Your task to perform on an android device: Open calendar and show me the second week of next month Image 0: 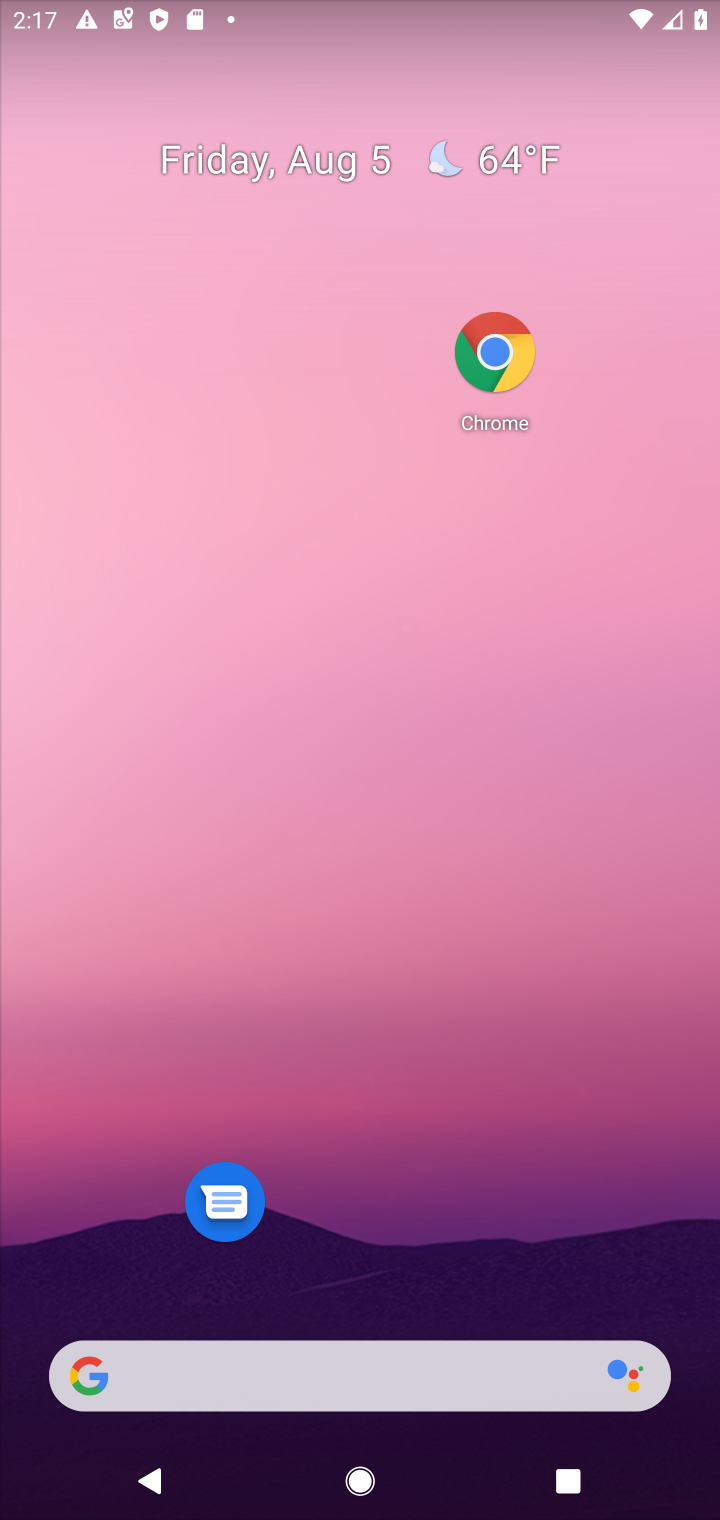
Step 0: drag from (465, 839) to (423, 113)
Your task to perform on an android device: Open calendar and show me the second week of next month Image 1: 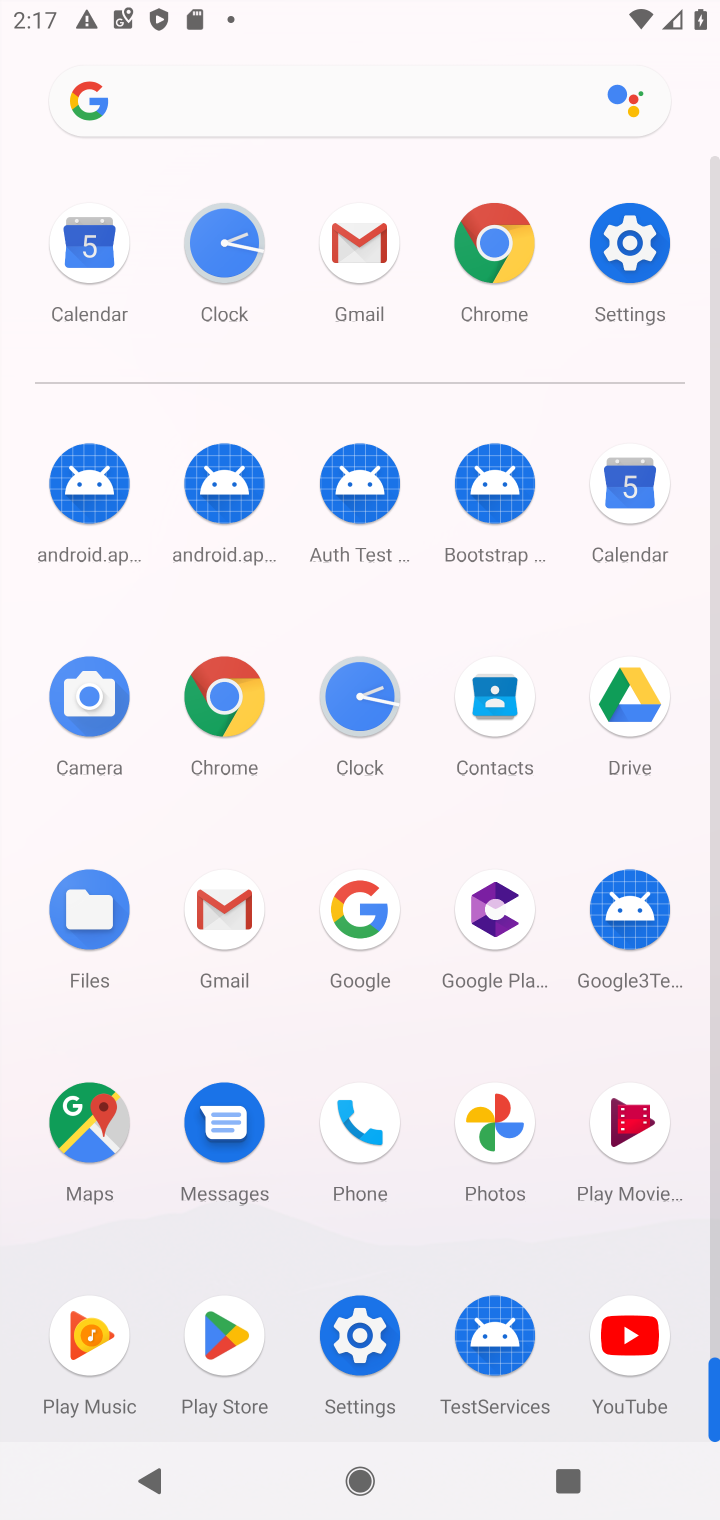
Step 1: click (624, 473)
Your task to perform on an android device: Open calendar and show me the second week of next month Image 2: 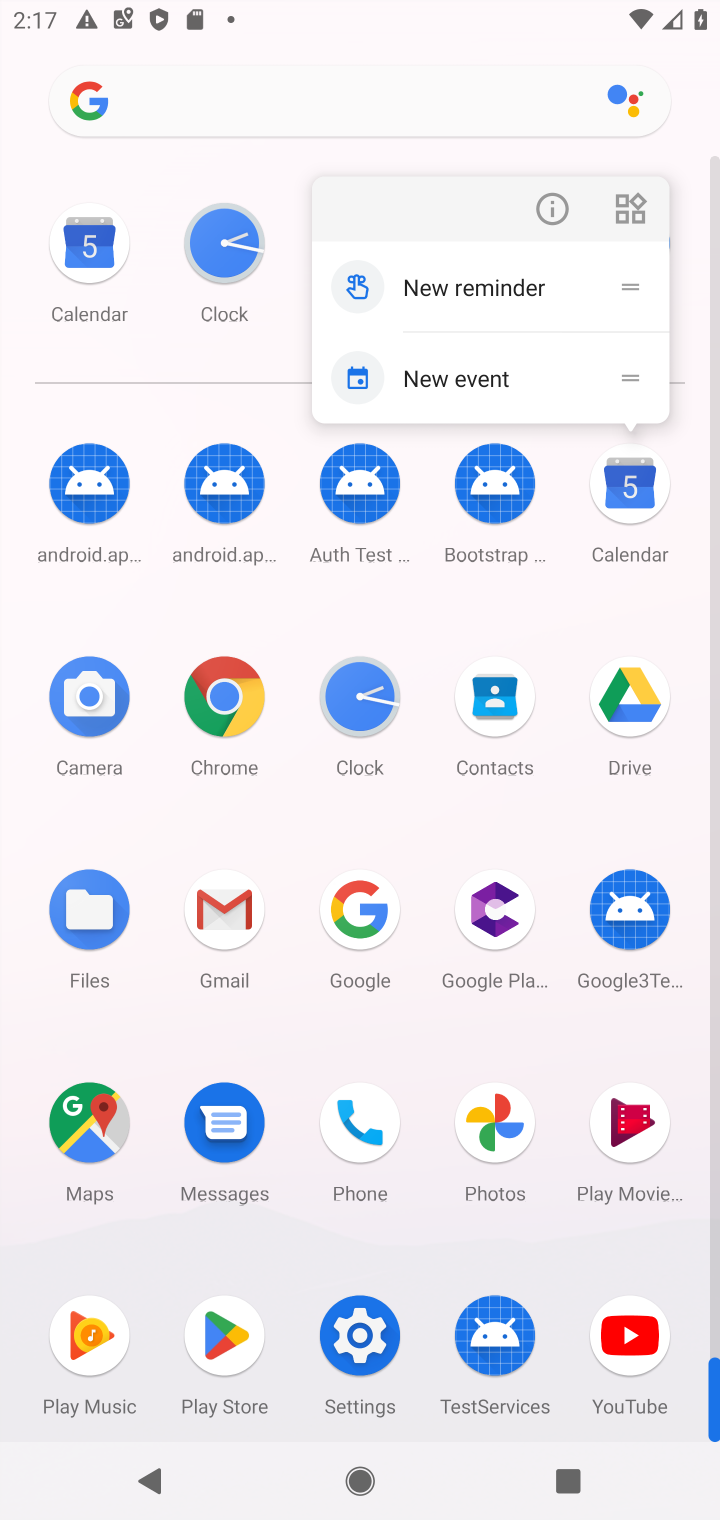
Step 2: click (620, 490)
Your task to perform on an android device: Open calendar and show me the second week of next month Image 3: 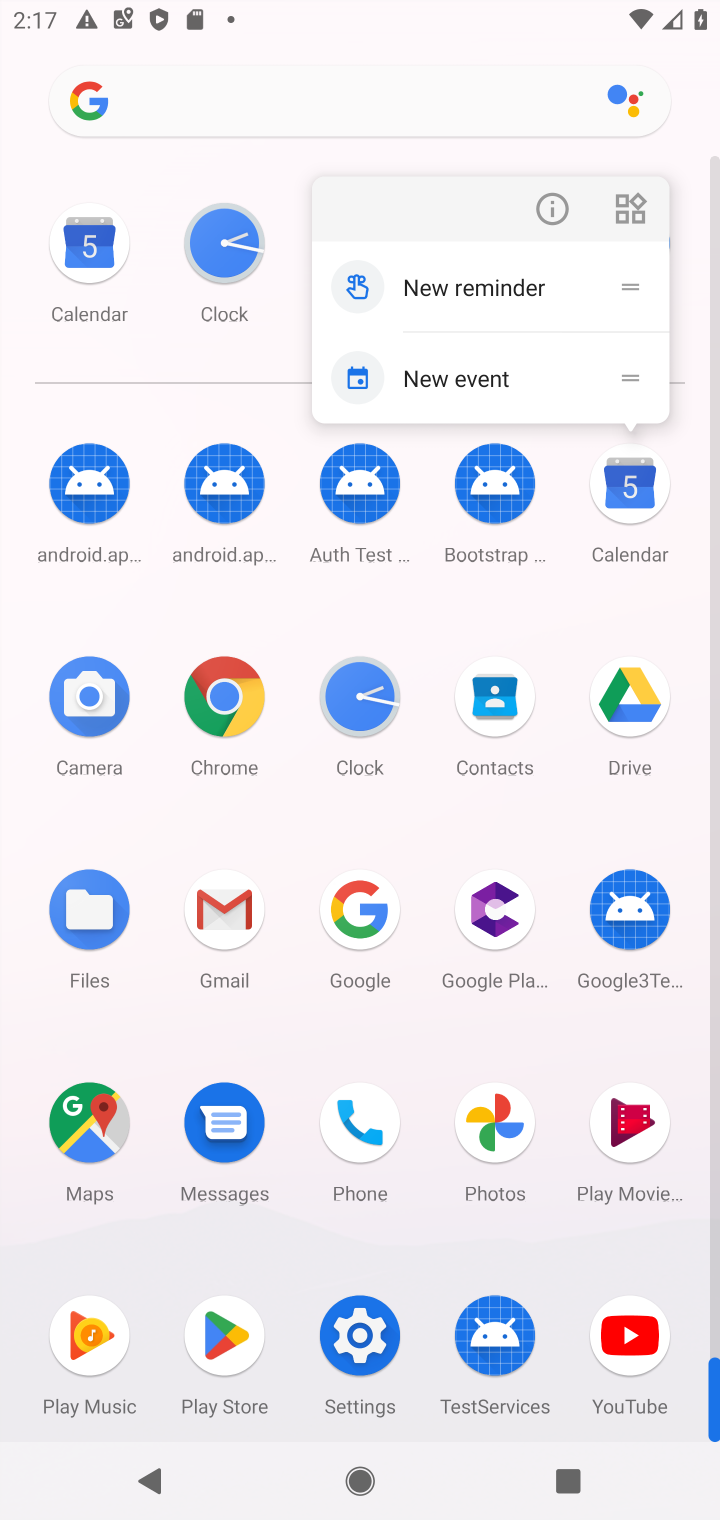
Step 3: click (581, 604)
Your task to perform on an android device: Open calendar and show me the second week of next month Image 4: 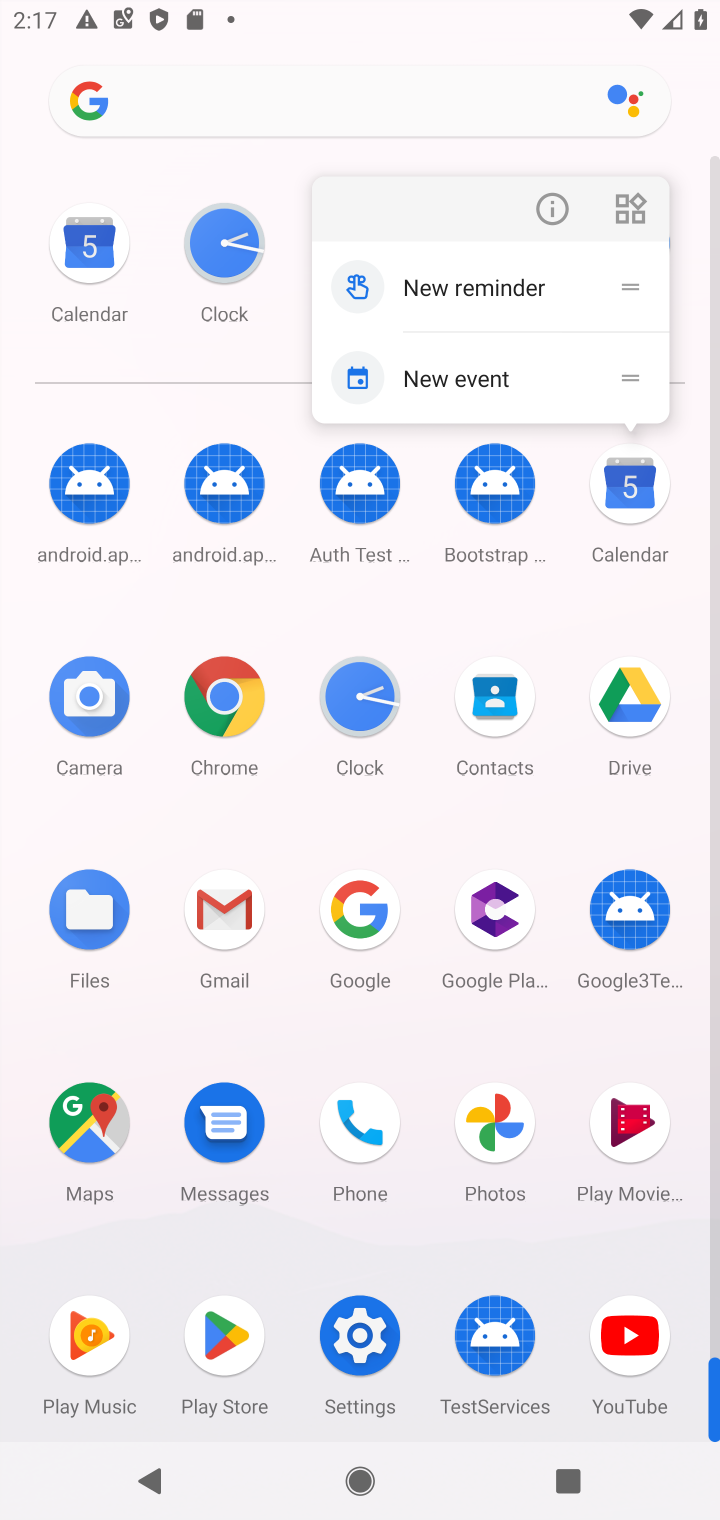
Step 4: click (601, 580)
Your task to perform on an android device: Open calendar and show me the second week of next month Image 5: 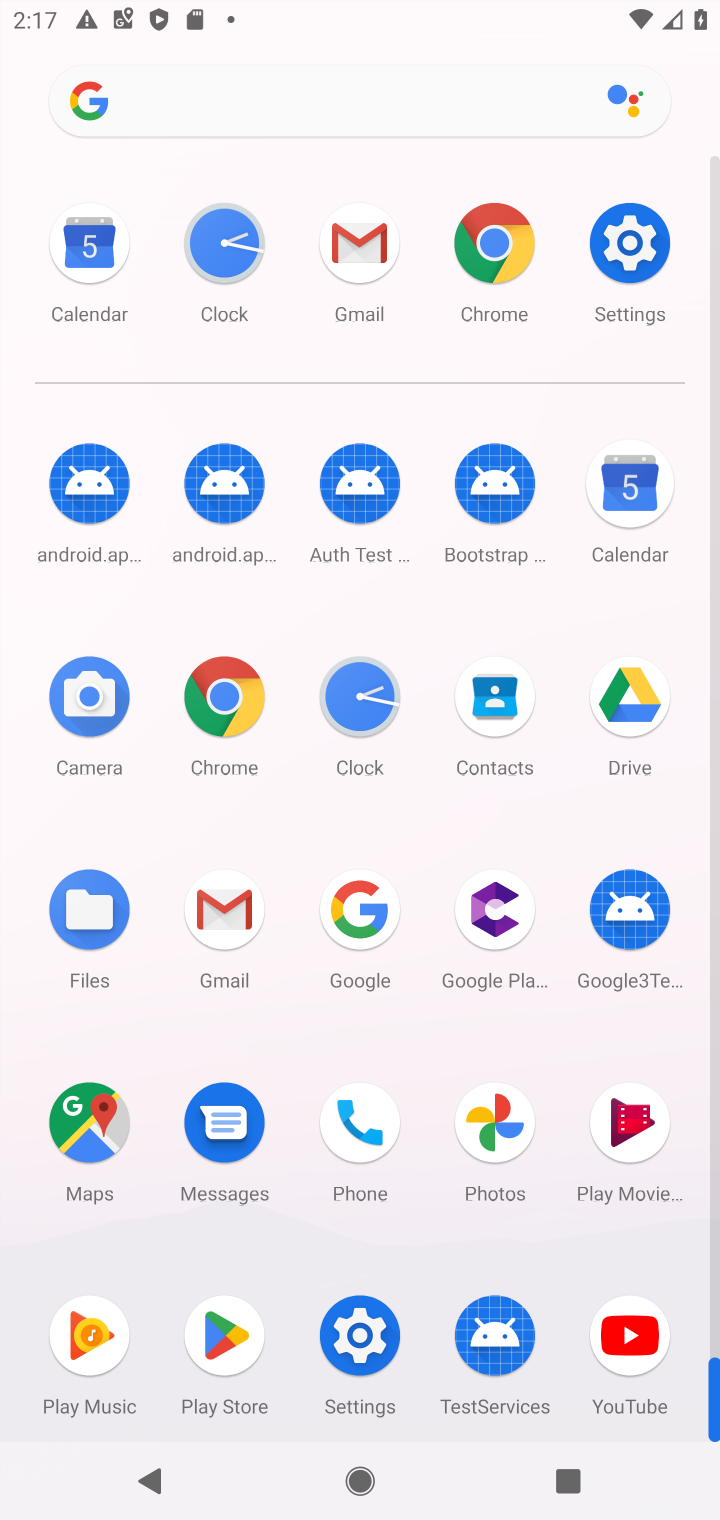
Step 5: click (635, 499)
Your task to perform on an android device: Open calendar and show me the second week of next month Image 6: 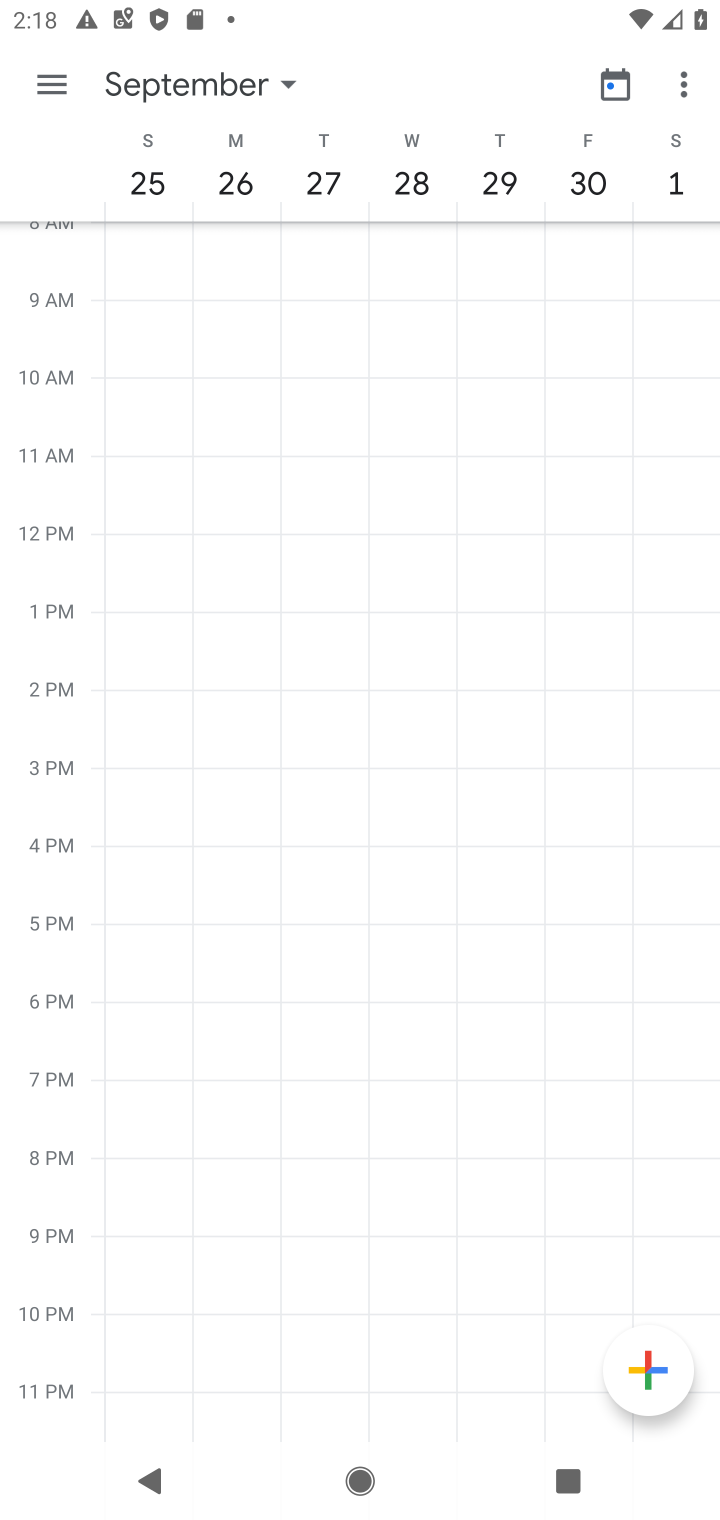
Step 6: click (243, 76)
Your task to perform on an android device: Open calendar and show me the second week of next month Image 7: 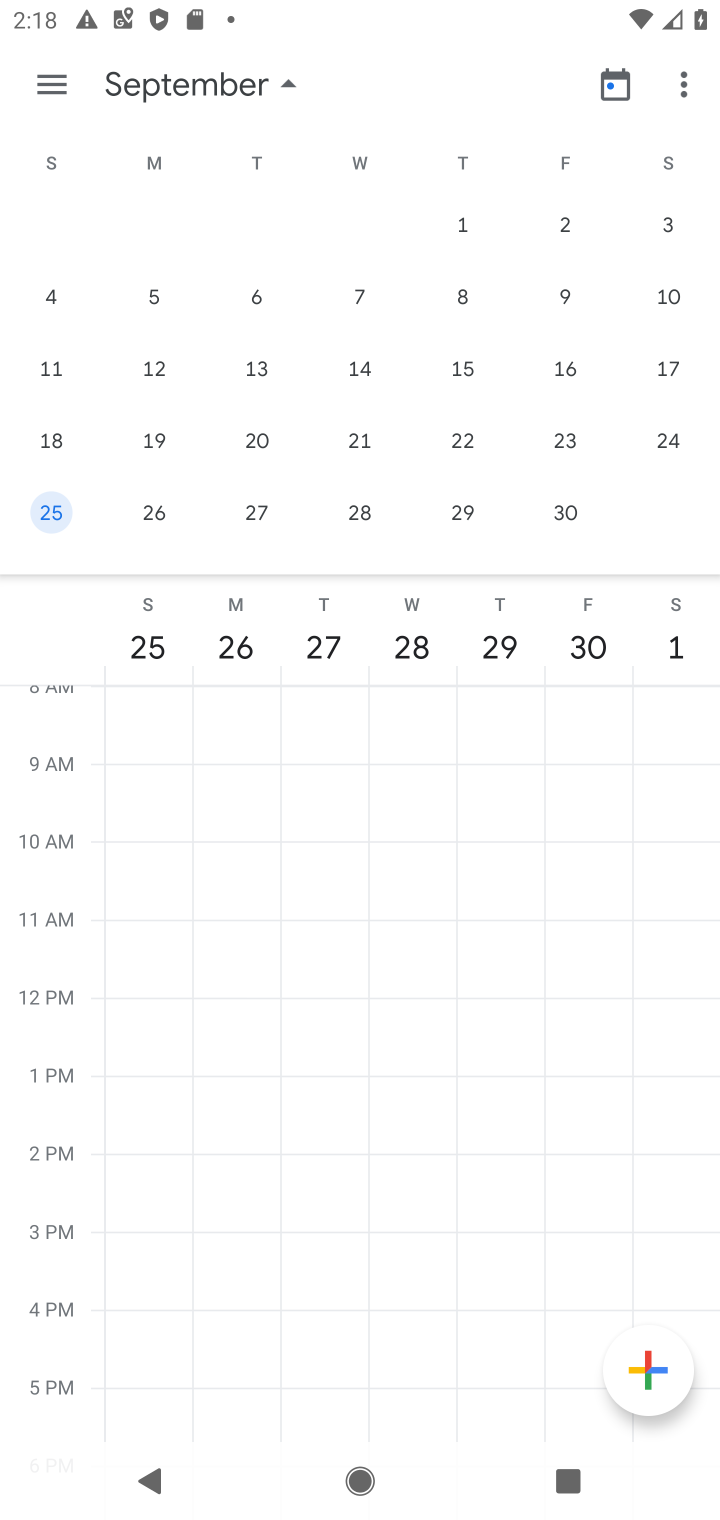
Step 7: click (263, 357)
Your task to perform on an android device: Open calendar and show me the second week of next month Image 8: 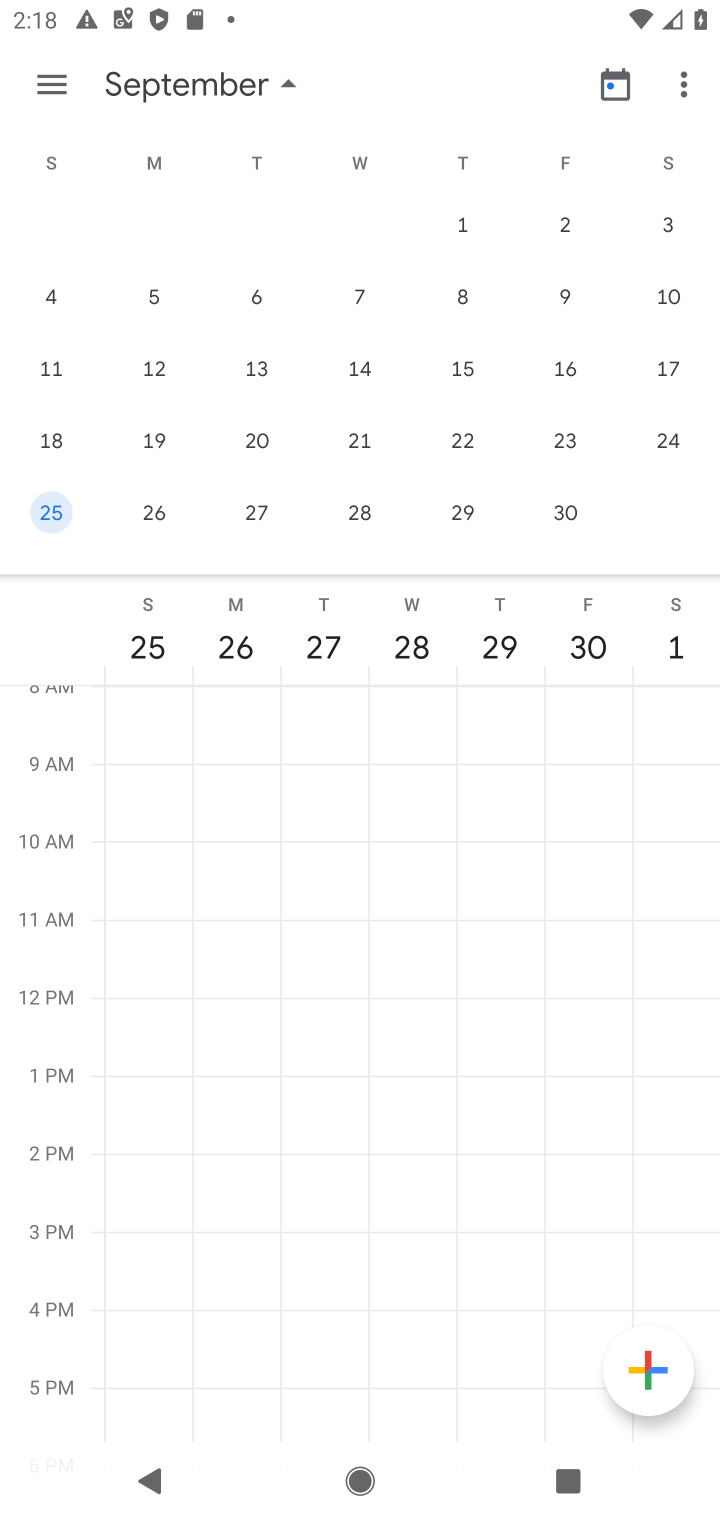
Step 8: click (263, 372)
Your task to perform on an android device: Open calendar and show me the second week of next month Image 9: 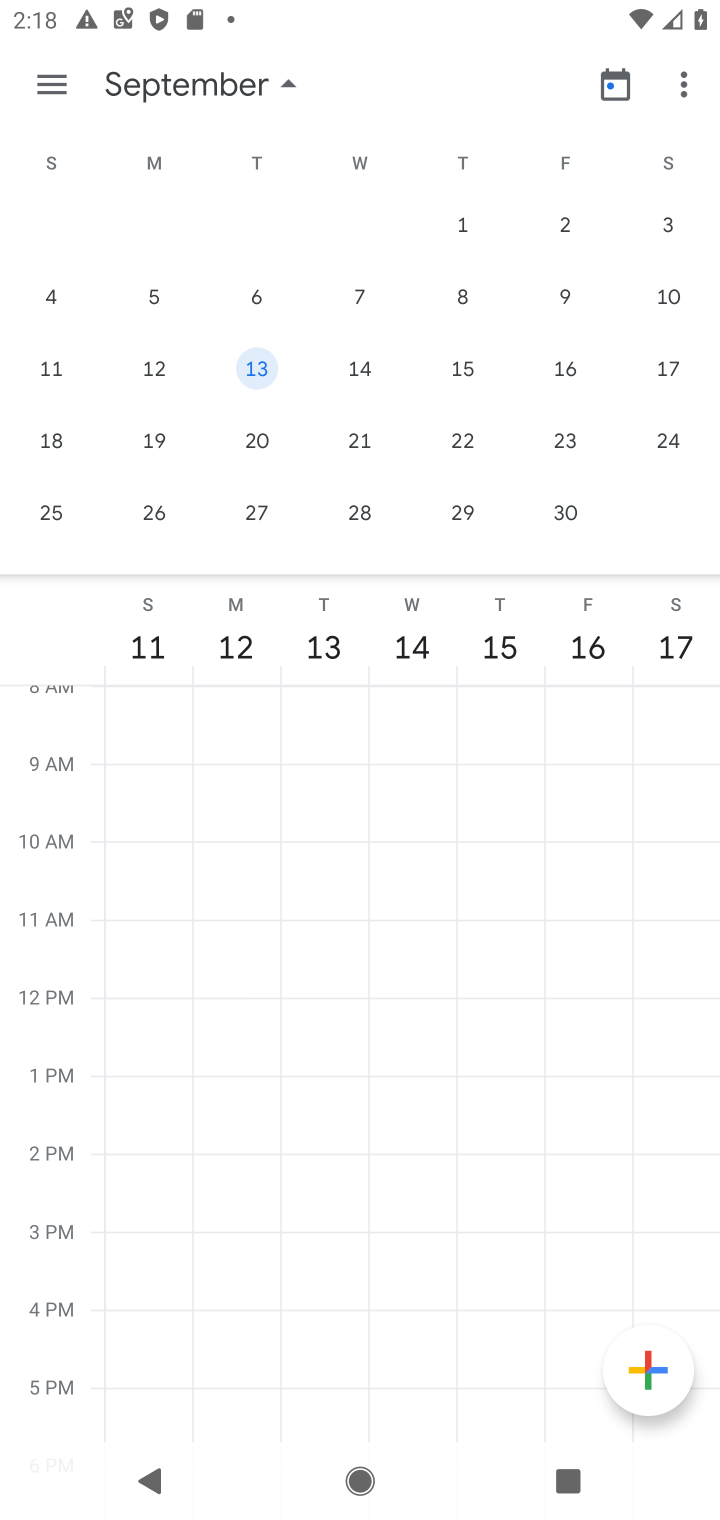
Step 9: task complete